Your task to perform on an android device: change the clock display to show seconds Image 0: 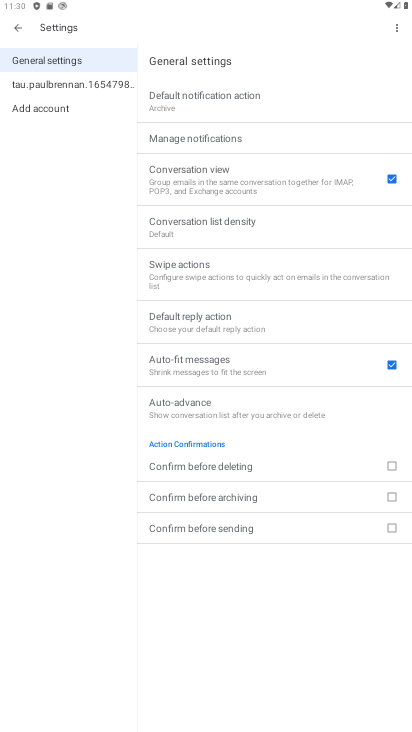
Step 0: press home button
Your task to perform on an android device: change the clock display to show seconds Image 1: 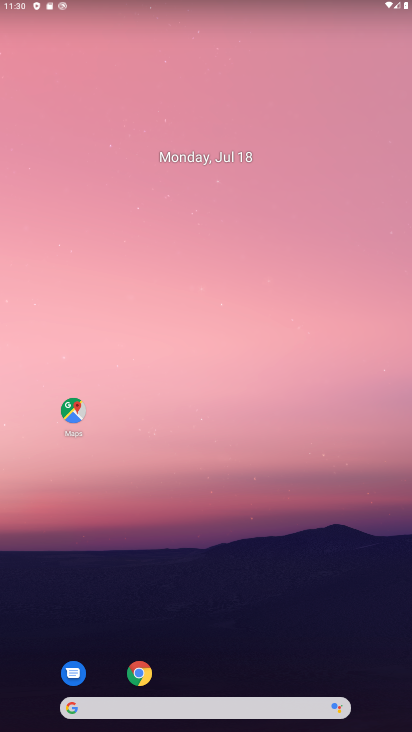
Step 1: drag from (328, 590) to (266, 3)
Your task to perform on an android device: change the clock display to show seconds Image 2: 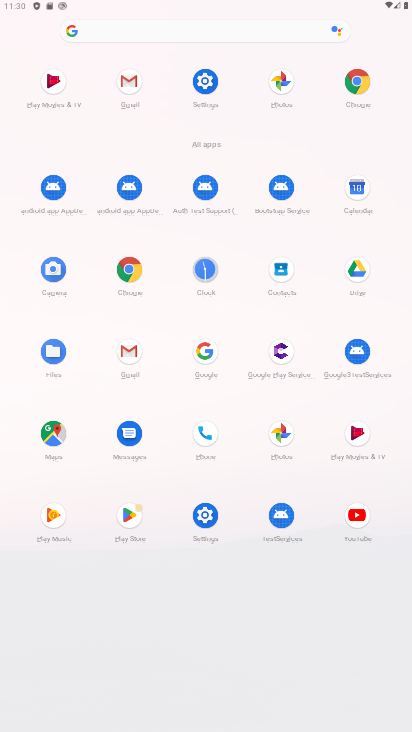
Step 2: click (202, 274)
Your task to perform on an android device: change the clock display to show seconds Image 3: 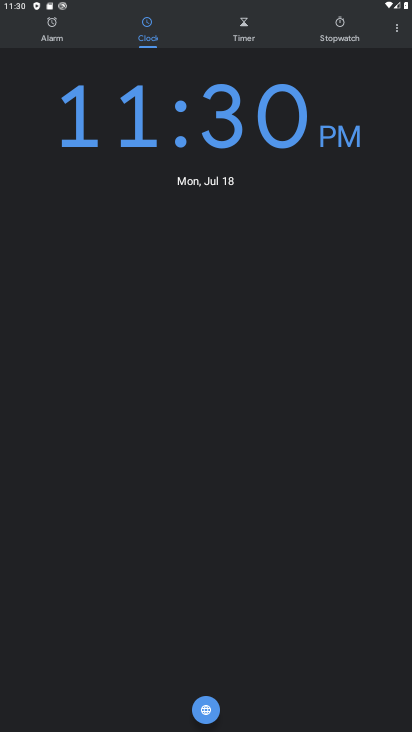
Step 3: click (400, 28)
Your task to perform on an android device: change the clock display to show seconds Image 4: 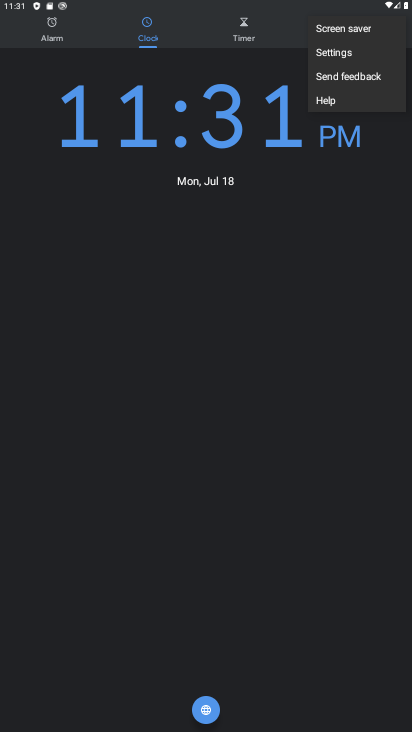
Step 4: click (337, 52)
Your task to perform on an android device: change the clock display to show seconds Image 5: 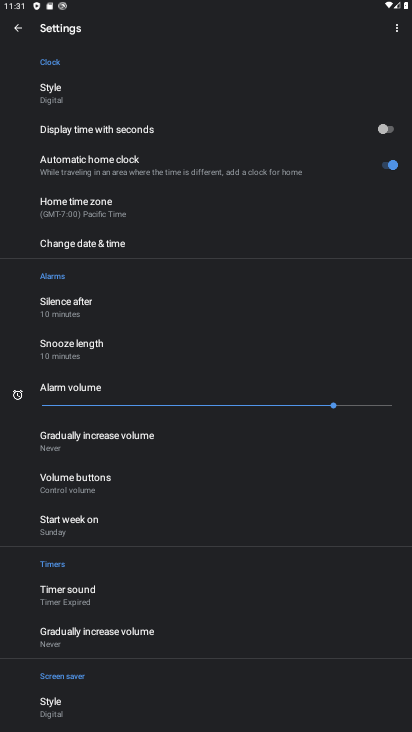
Step 5: click (385, 130)
Your task to perform on an android device: change the clock display to show seconds Image 6: 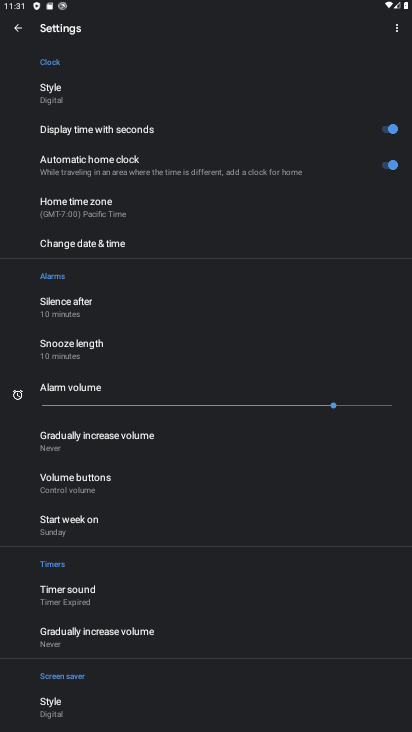
Step 6: task complete